Your task to perform on an android device: change the clock style Image 0: 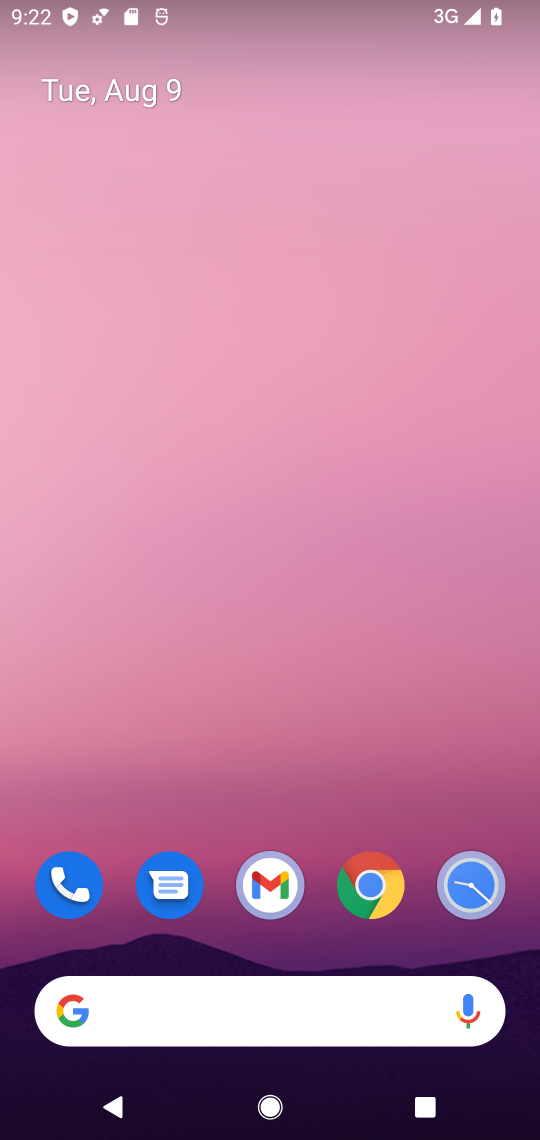
Step 0: press home button
Your task to perform on an android device: change the clock style Image 1: 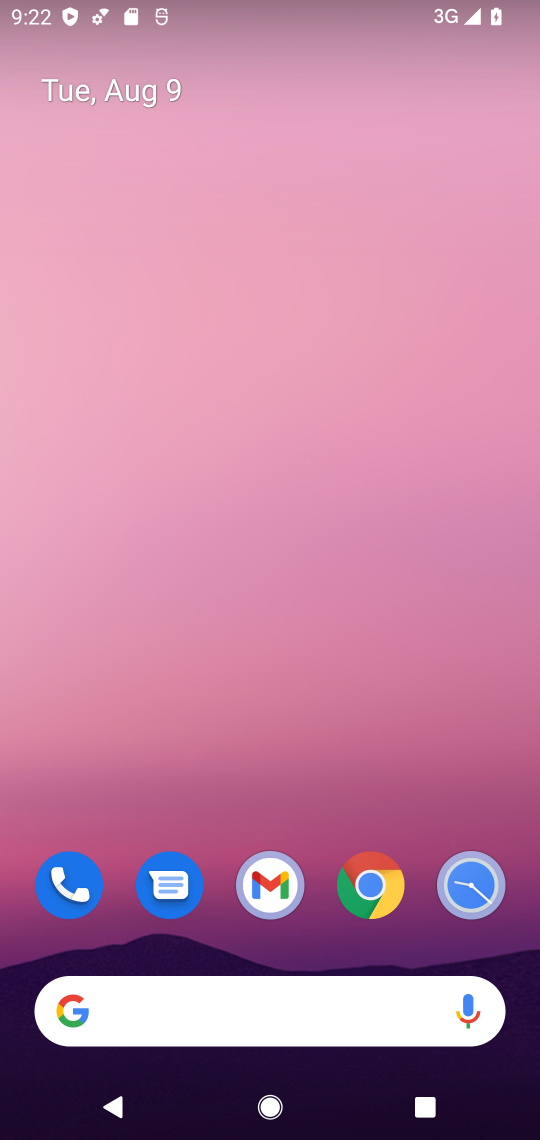
Step 1: drag from (324, 818) to (318, 28)
Your task to perform on an android device: change the clock style Image 2: 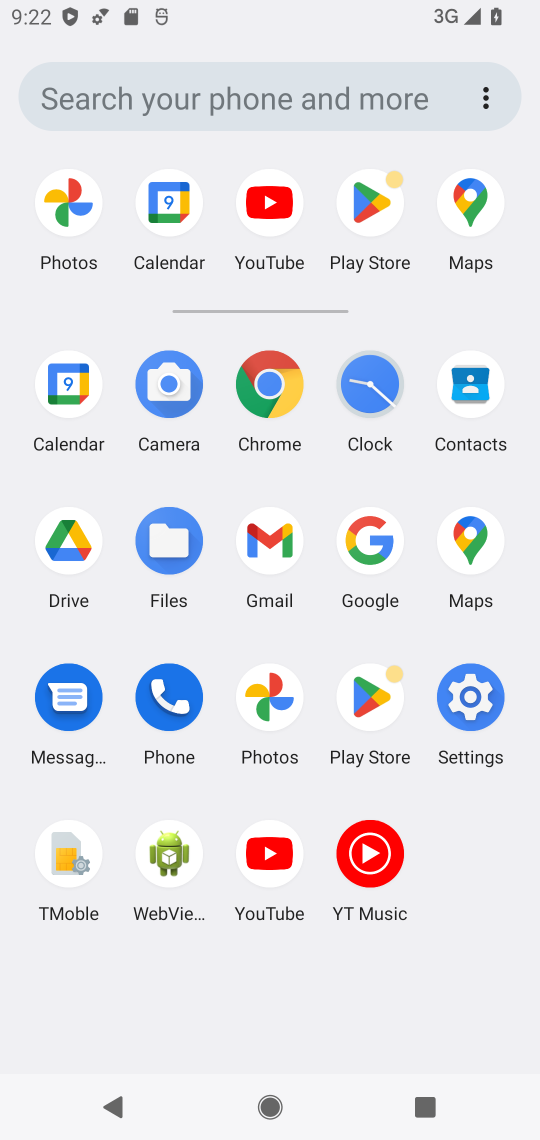
Step 2: click (372, 379)
Your task to perform on an android device: change the clock style Image 3: 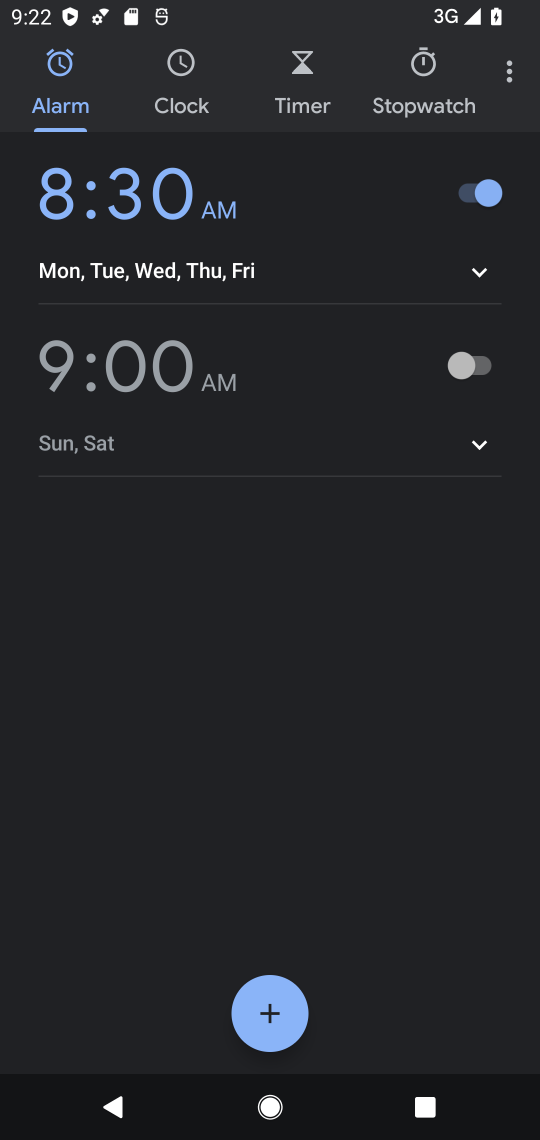
Step 3: click (495, 79)
Your task to perform on an android device: change the clock style Image 4: 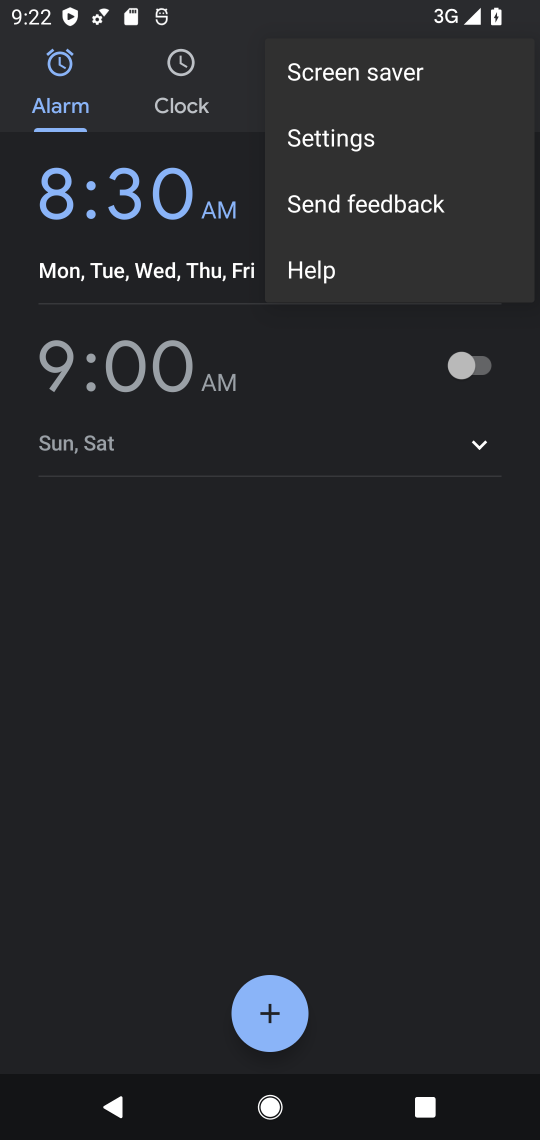
Step 4: click (390, 150)
Your task to perform on an android device: change the clock style Image 5: 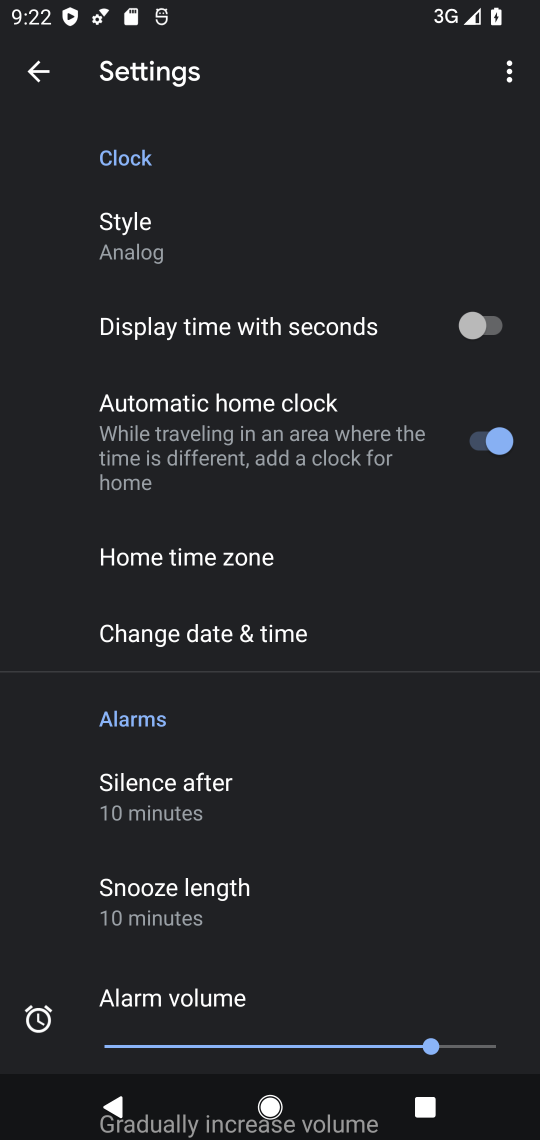
Step 5: click (209, 239)
Your task to perform on an android device: change the clock style Image 6: 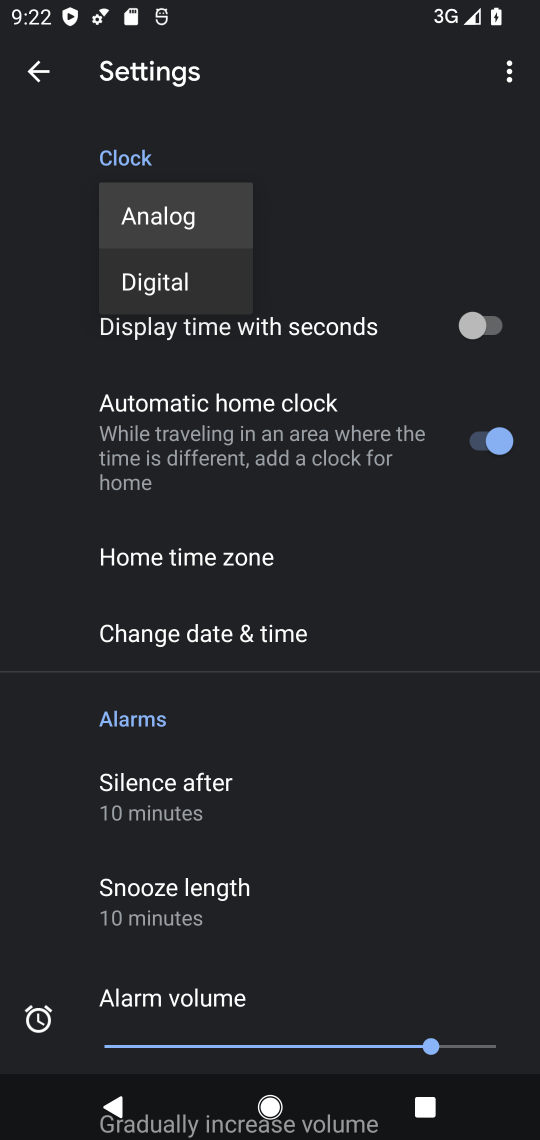
Step 6: click (195, 285)
Your task to perform on an android device: change the clock style Image 7: 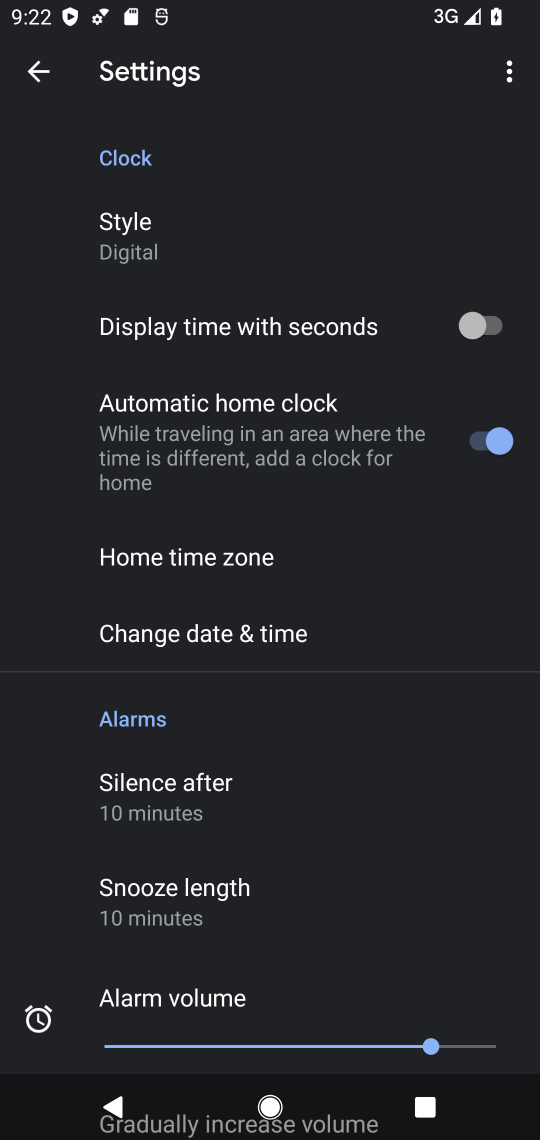
Step 7: task complete